Your task to perform on an android device: change notification settings in the gmail app Image 0: 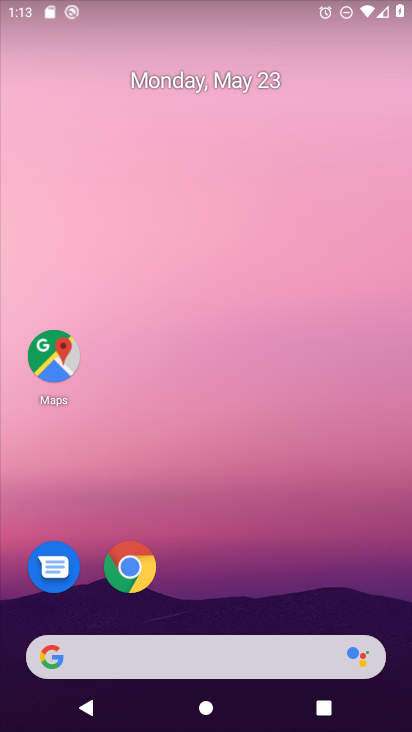
Step 0: drag from (163, 626) to (165, 228)
Your task to perform on an android device: change notification settings in the gmail app Image 1: 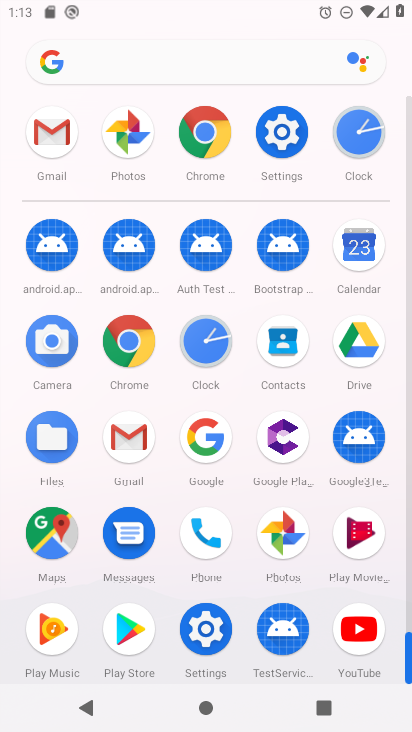
Step 1: click (55, 135)
Your task to perform on an android device: change notification settings in the gmail app Image 2: 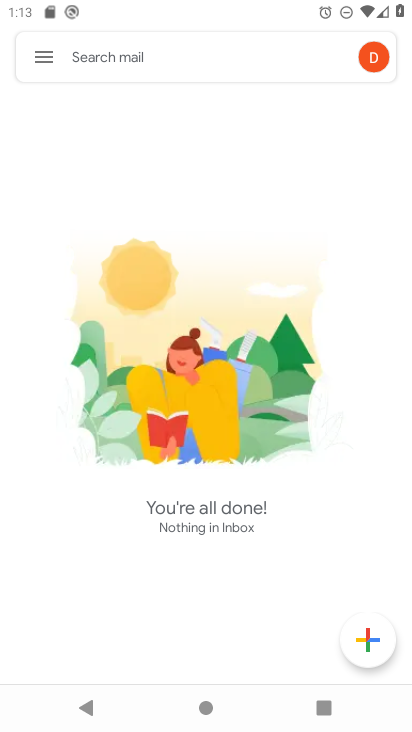
Step 2: click (54, 66)
Your task to perform on an android device: change notification settings in the gmail app Image 3: 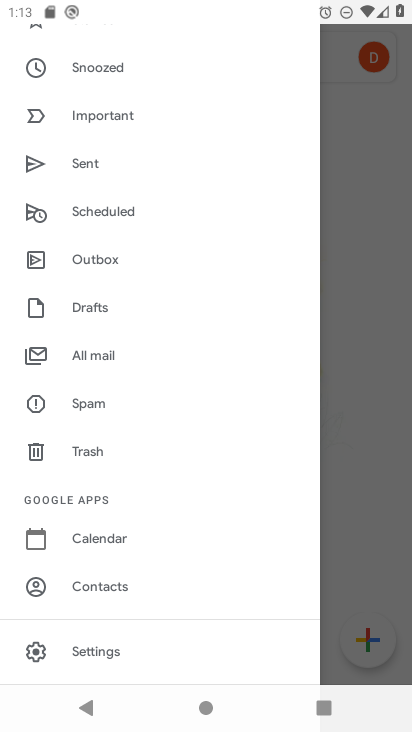
Step 3: click (74, 644)
Your task to perform on an android device: change notification settings in the gmail app Image 4: 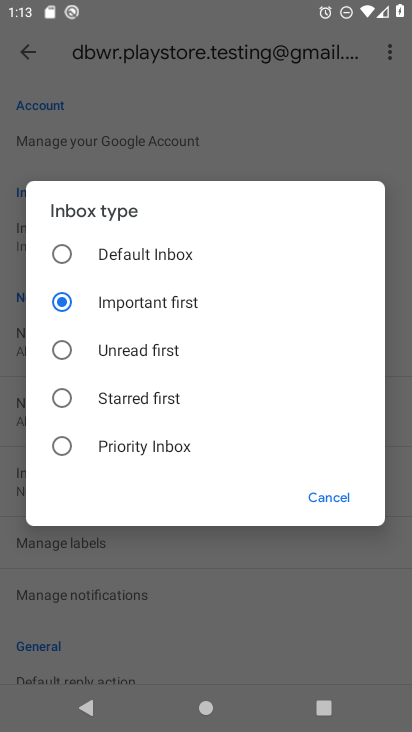
Step 4: click (334, 491)
Your task to perform on an android device: change notification settings in the gmail app Image 5: 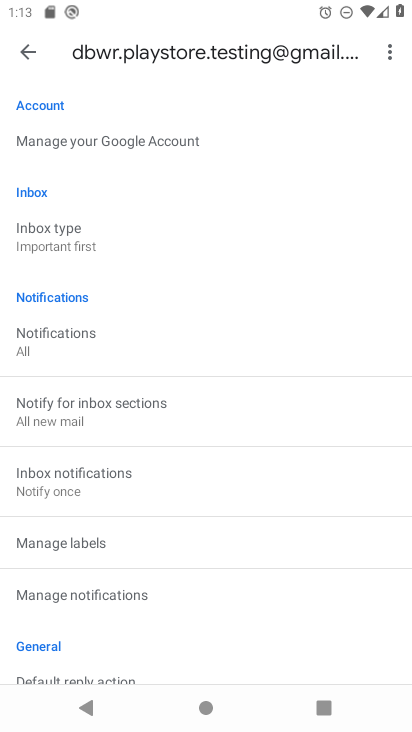
Step 5: click (82, 326)
Your task to perform on an android device: change notification settings in the gmail app Image 6: 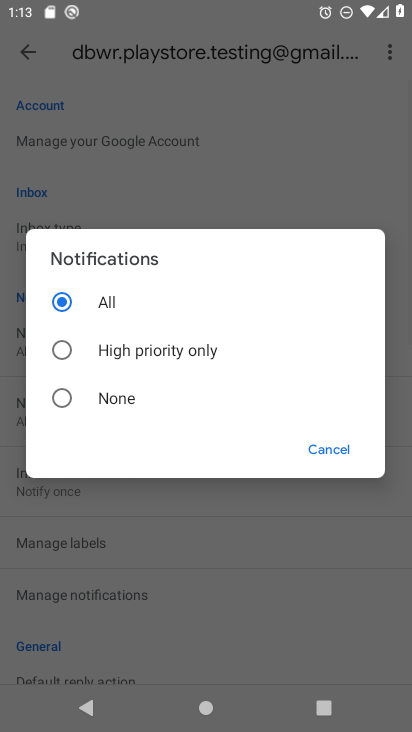
Step 6: click (118, 350)
Your task to perform on an android device: change notification settings in the gmail app Image 7: 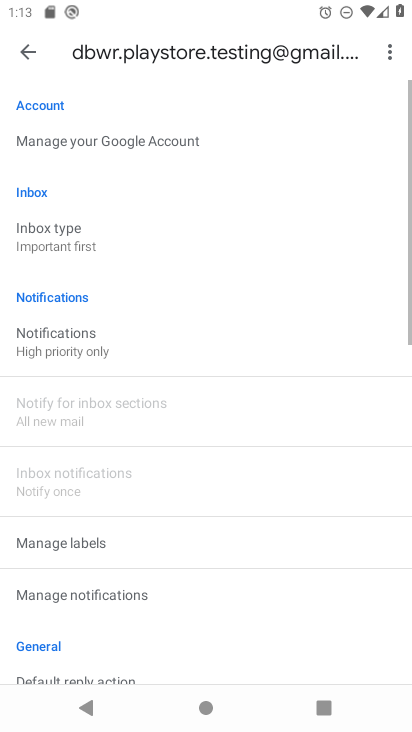
Step 7: task complete